Your task to perform on an android device: Go to wifi settings Image 0: 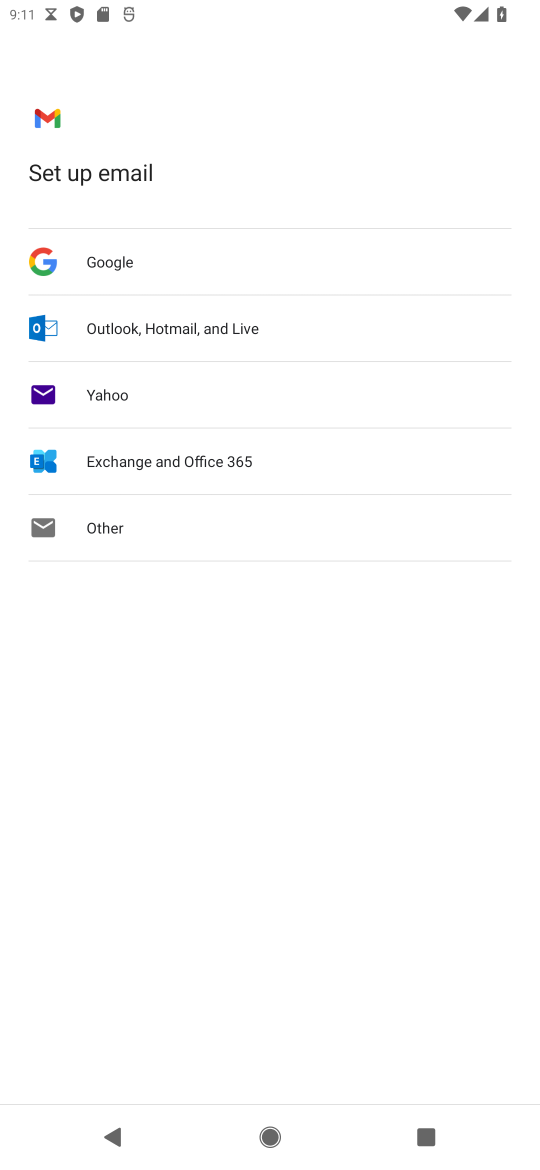
Step 0: press home button
Your task to perform on an android device: Go to wifi settings Image 1: 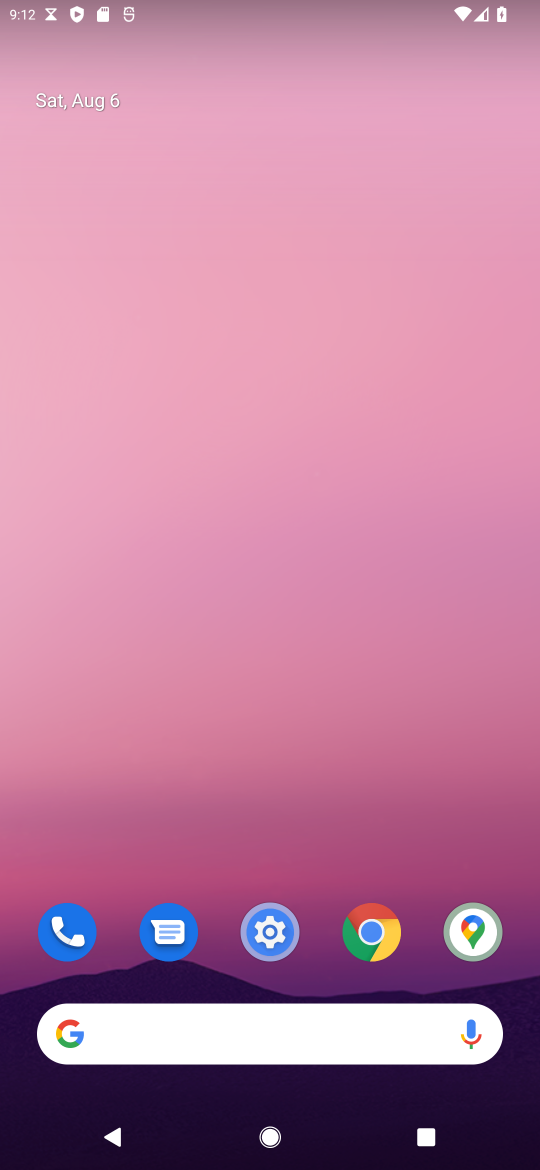
Step 1: click (270, 934)
Your task to perform on an android device: Go to wifi settings Image 2: 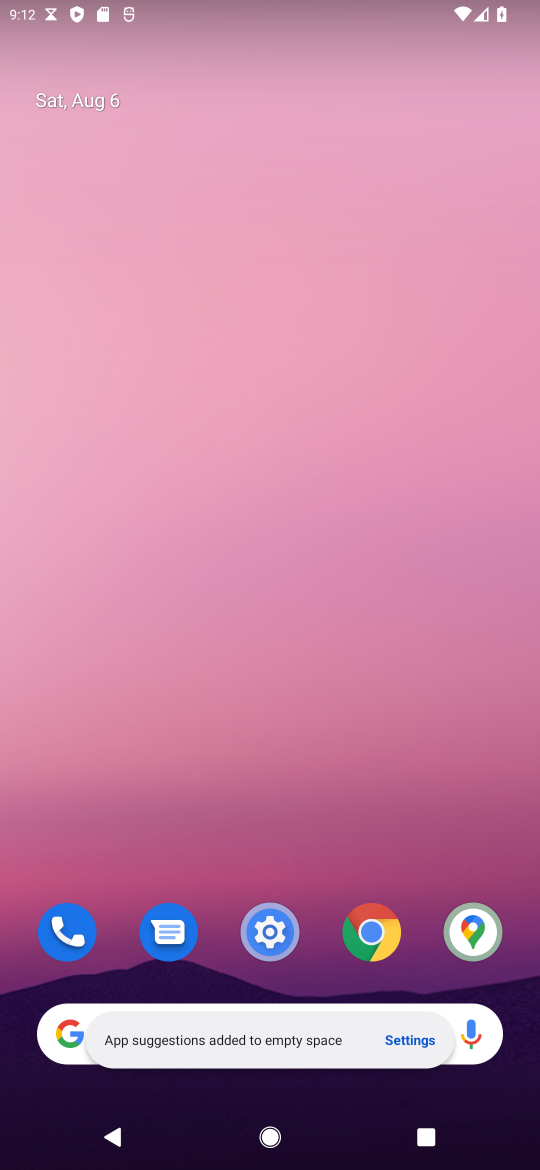
Step 2: click (270, 934)
Your task to perform on an android device: Go to wifi settings Image 3: 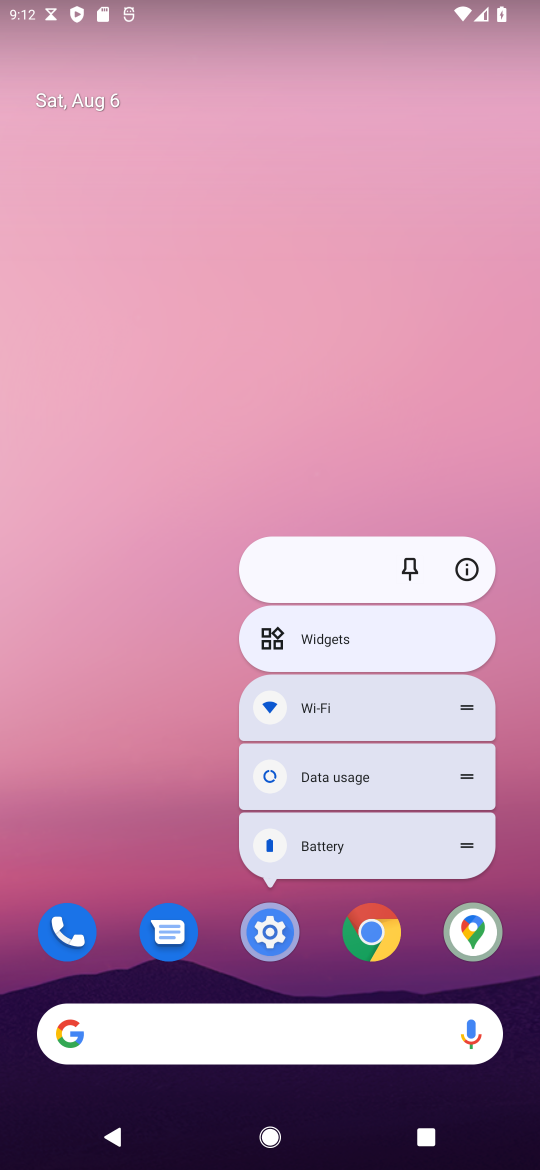
Step 3: click (270, 934)
Your task to perform on an android device: Go to wifi settings Image 4: 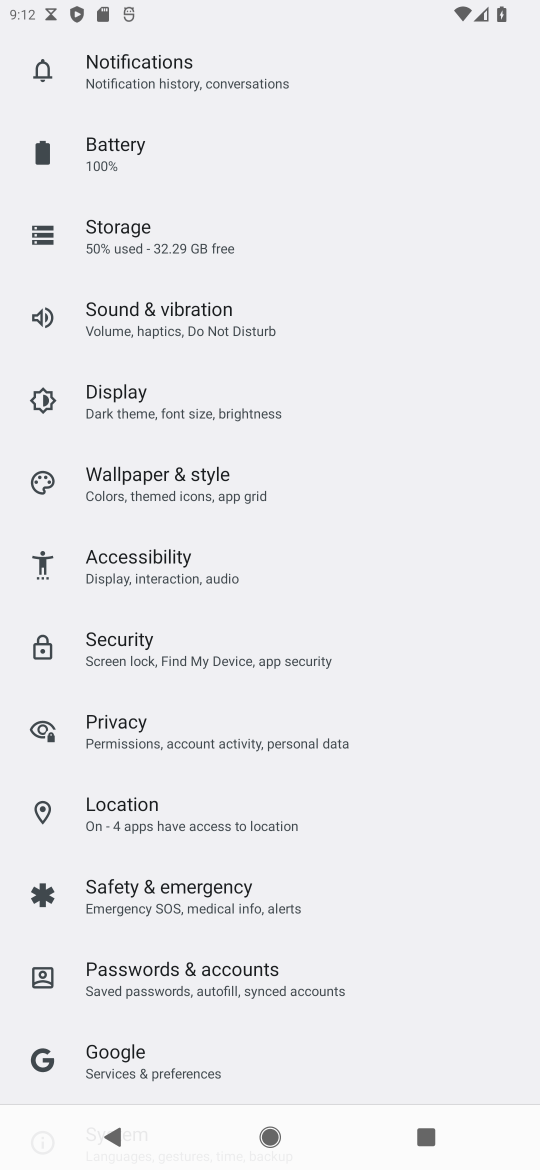
Step 4: drag from (250, 502) to (195, 813)
Your task to perform on an android device: Go to wifi settings Image 5: 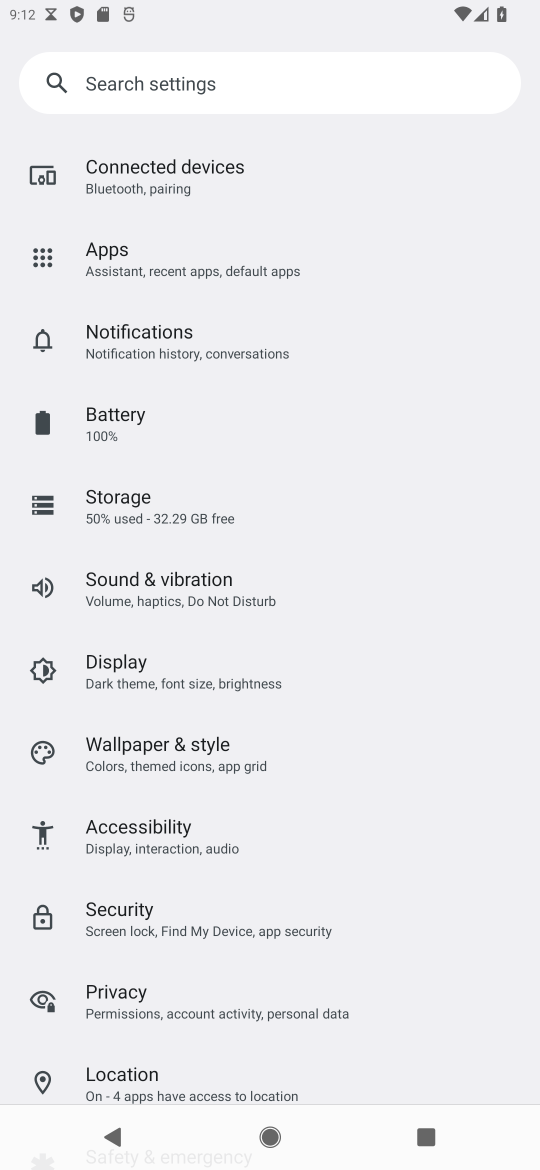
Step 5: drag from (259, 224) to (201, 592)
Your task to perform on an android device: Go to wifi settings Image 6: 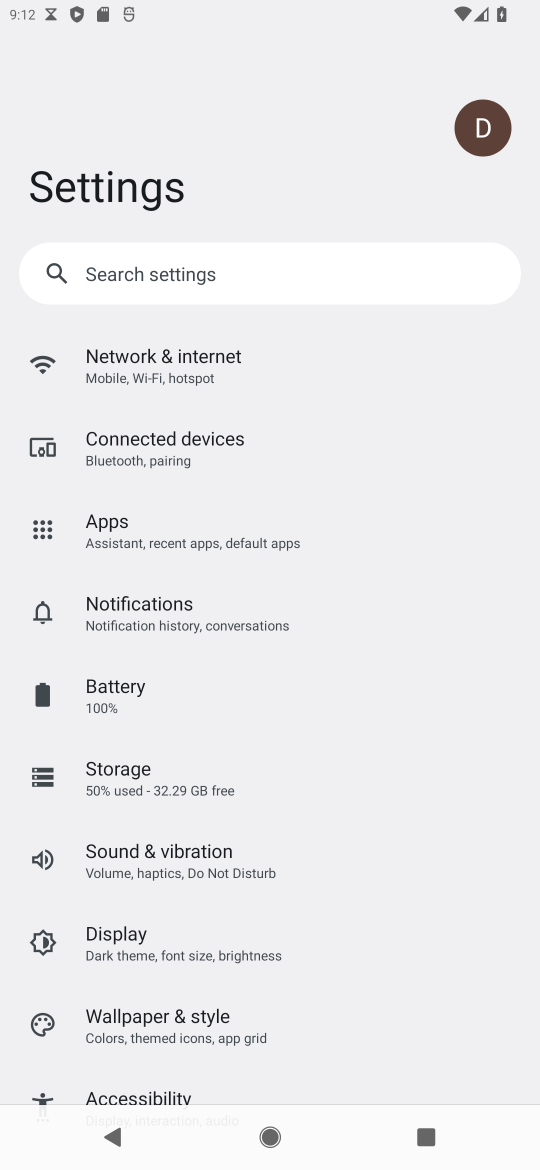
Step 6: click (195, 361)
Your task to perform on an android device: Go to wifi settings Image 7: 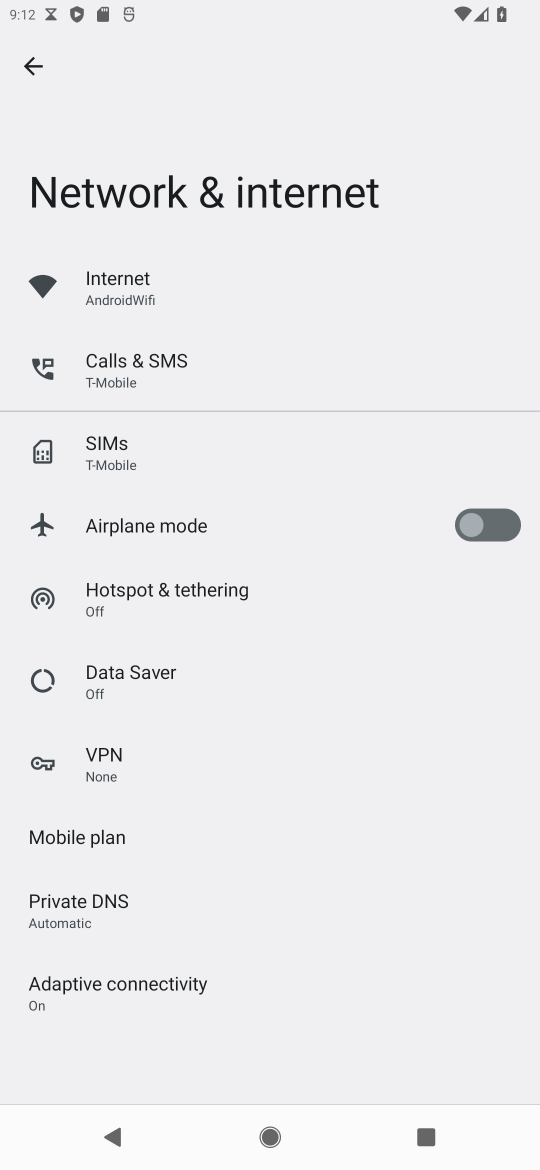
Step 7: click (138, 299)
Your task to perform on an android device: Go to wifi settings Image 8: 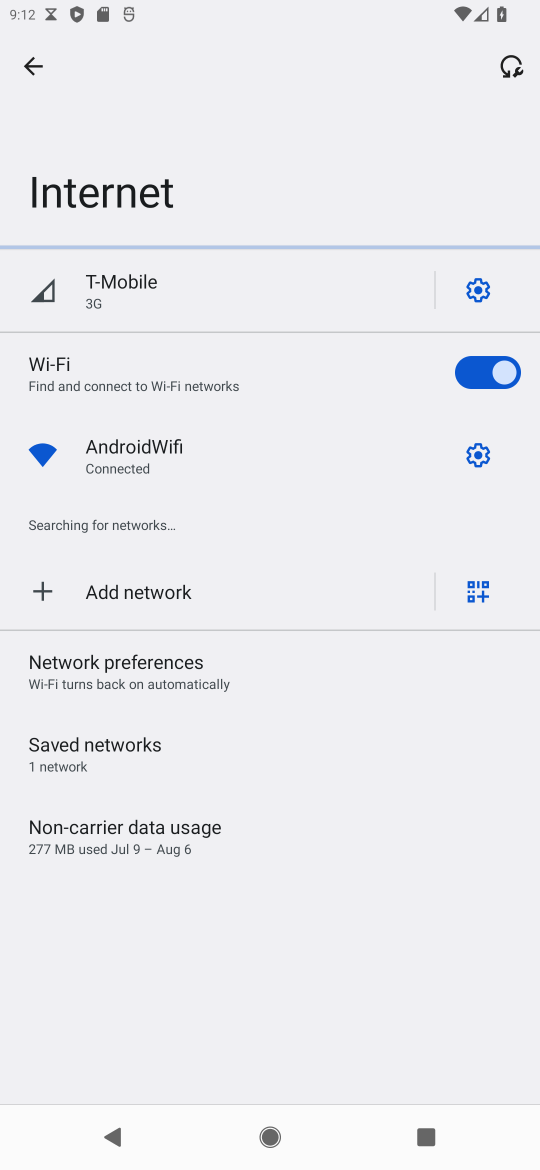
Step 8: click (472, 457)
Your task to perform on an android device: Go to wifi settings Image 9: 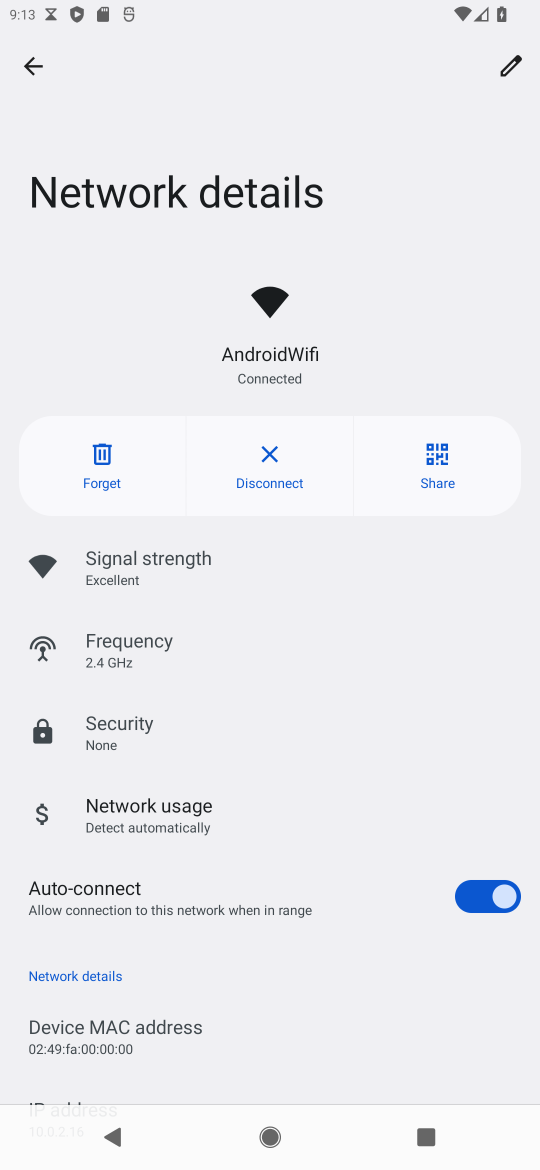
Step 9: task complete